Your task to perform on an android device: turn on airplane mode Image 0: 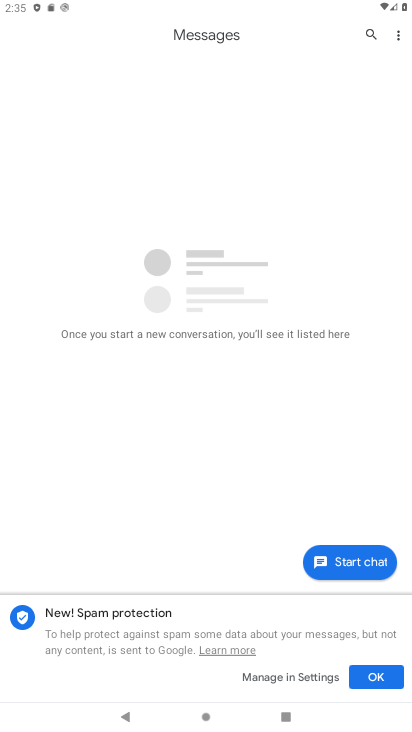
Step 0: press home button
Your task to perform on an android device: turn on airplane mode Image 1: 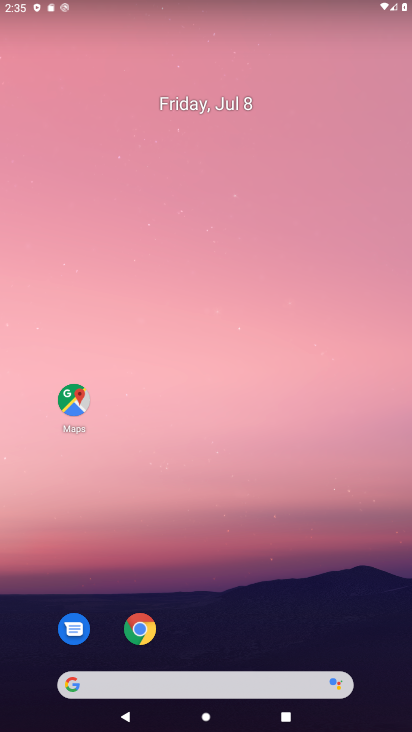
Step 1: drag from (263, 155) to (322, 7)
Your task to perform on an android device: turn on airplane mode Image 2: 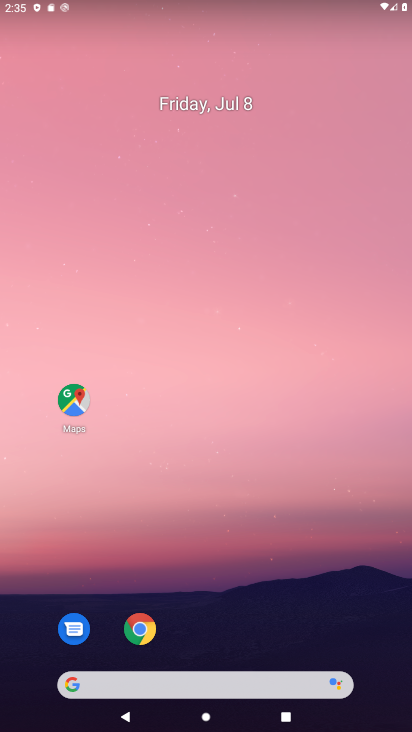
Step 2: drag from (19, 693) to (237, 127)
Your task to perform on an android device: turn on airplane mode Image 3: 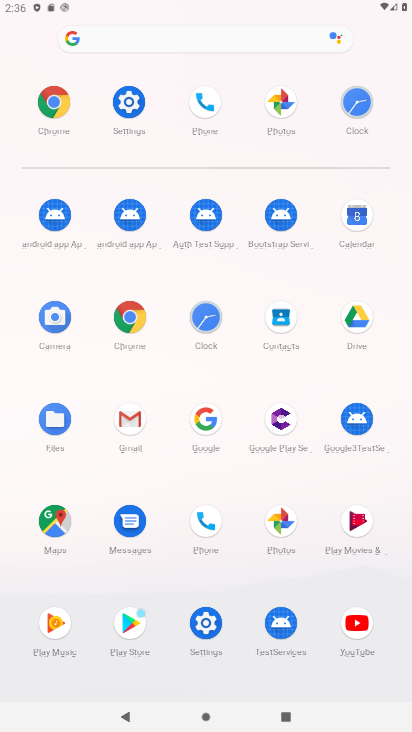
Step 3: click (200, 628)
Your task to perform on an android device: turn on airplane mode Image 4: 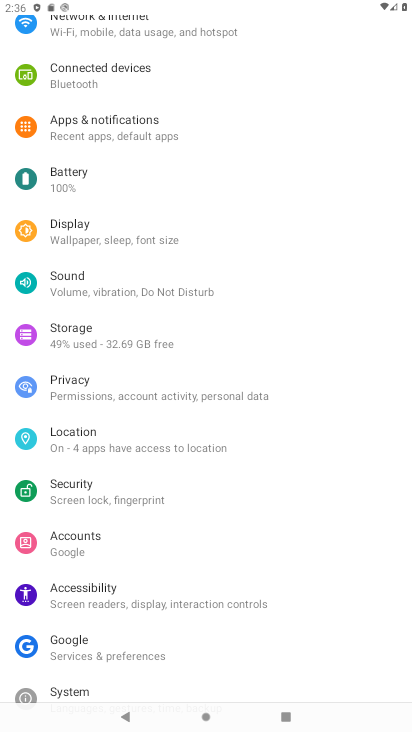
Step 4: drag from (274, 318) to (238, 623)
Your task to perform on an android device: turn on airplane mode Image 5: 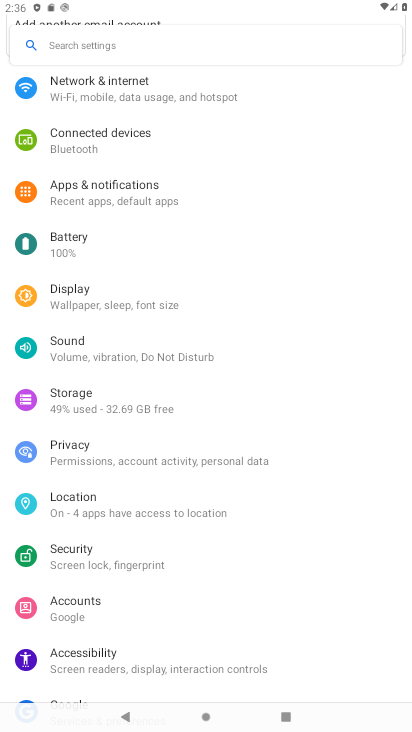
Step 5: click (115, 97)
Your task to perform on an android device: turn on airplane mode Image 6: 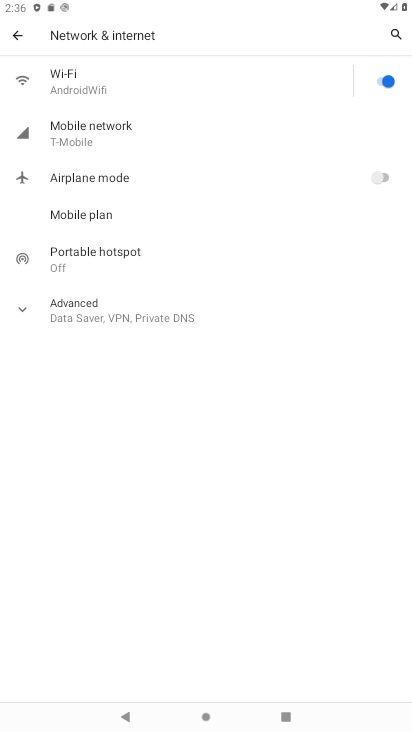
Step 6: click (378, 180)
Your task to perform on an android device: turn on airplane mode Image 7: 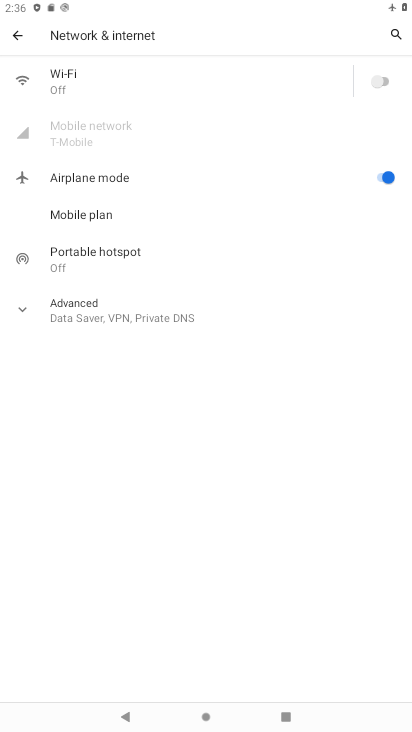
Step 7: task complete